Your task to perform on an android device: Open sound settings Image 0: 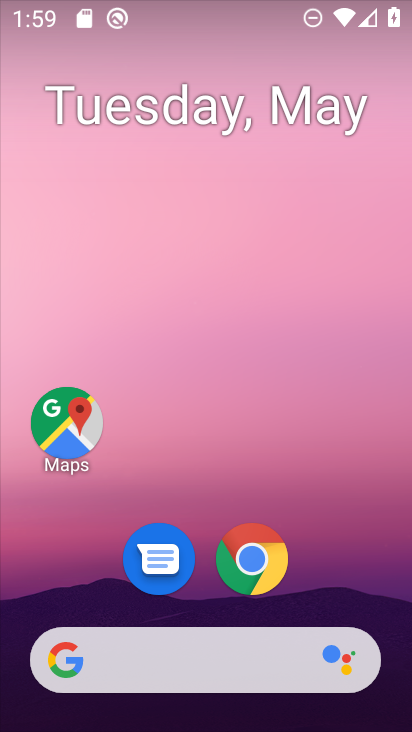
Step 0: drag from (398, 636) to (267, 68)
Your task to perform on an android device: Open sound settings Image 1: 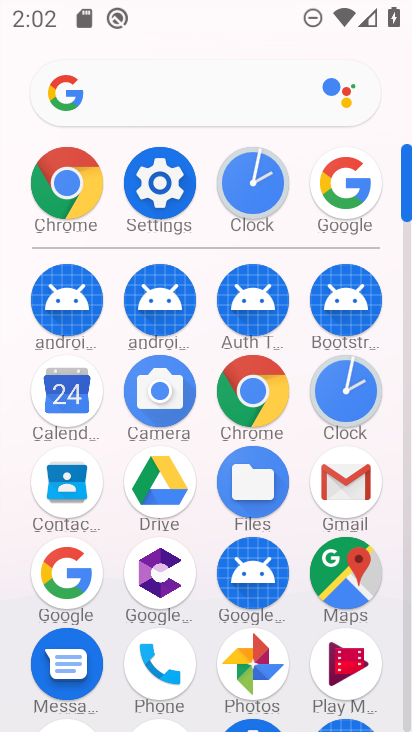
Step 1: click (145, 201)
Your task to perform on an android device: Open sound settings Image 2: 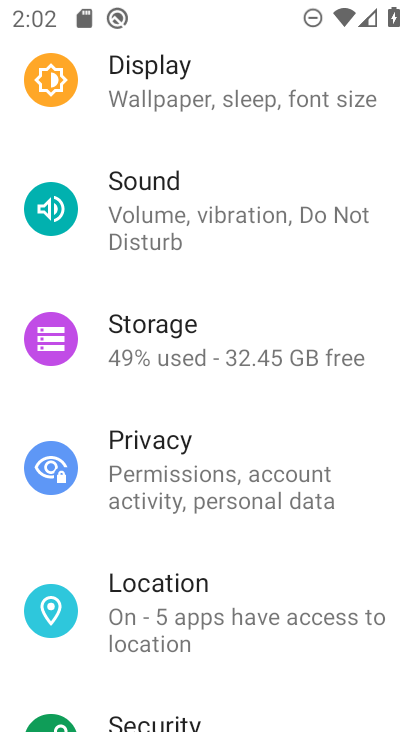
Step 2: click (227, 249)
Your task to perform on an android device: Open sound settings Image 3: 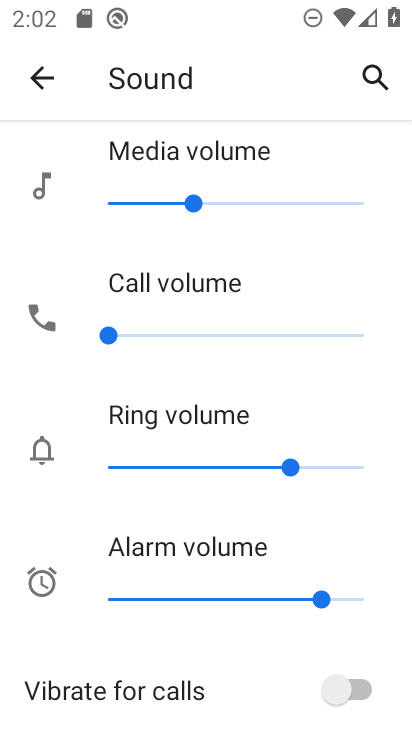
Step 3: task complete